Your task to perform on an android device: open chrome and create a bookmark for the current page Image 0: 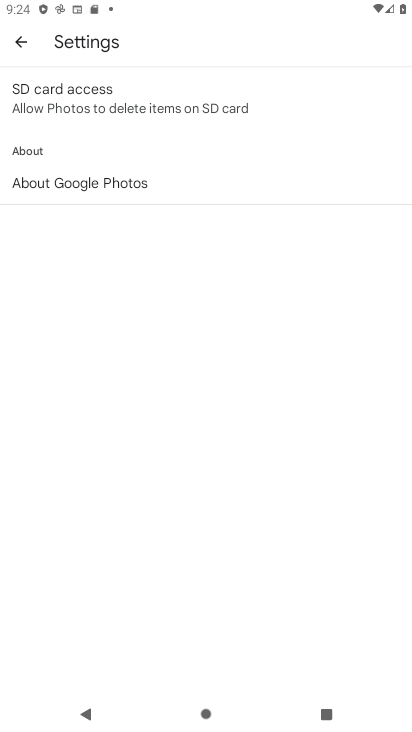
Step 0: press home button
Your task to perform on an android device: open chrome and create a bookmark for the current page Image 1: 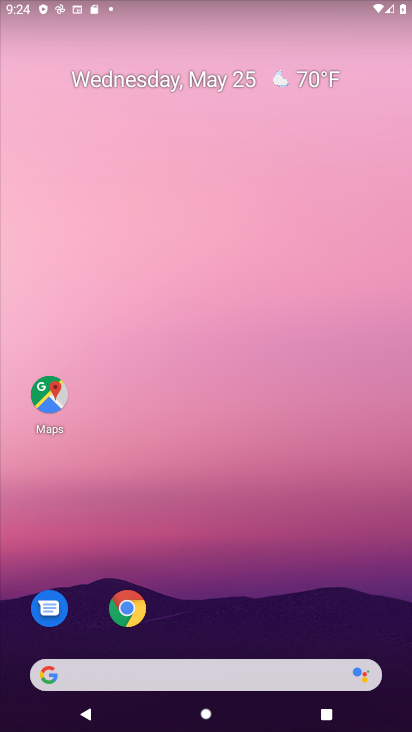
Step 1: click (131, 607)
Your task to perform on an android device: open chrome and create a bookmark for the current page Image 2: 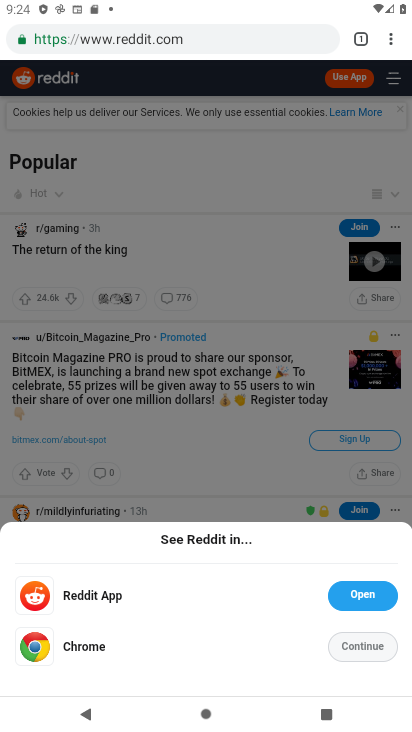
Step 2: click (391, 38)
Your task to perform on an android device: open chrome and create a bookmark for the current page Image 3: 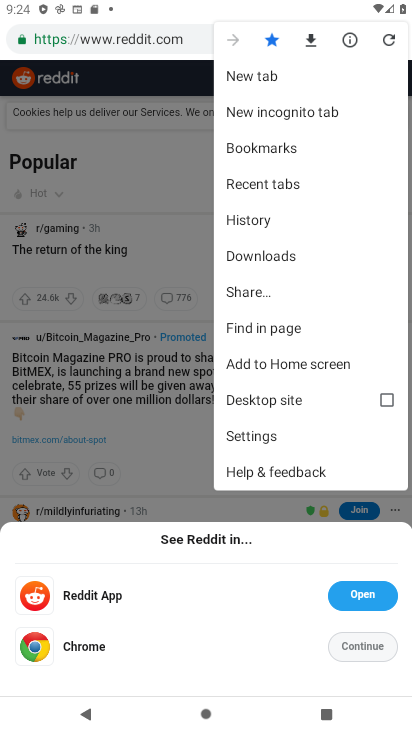
Step 3: task complete